Your task to perform on an android device: open app "Firefox Browser" Image 0: 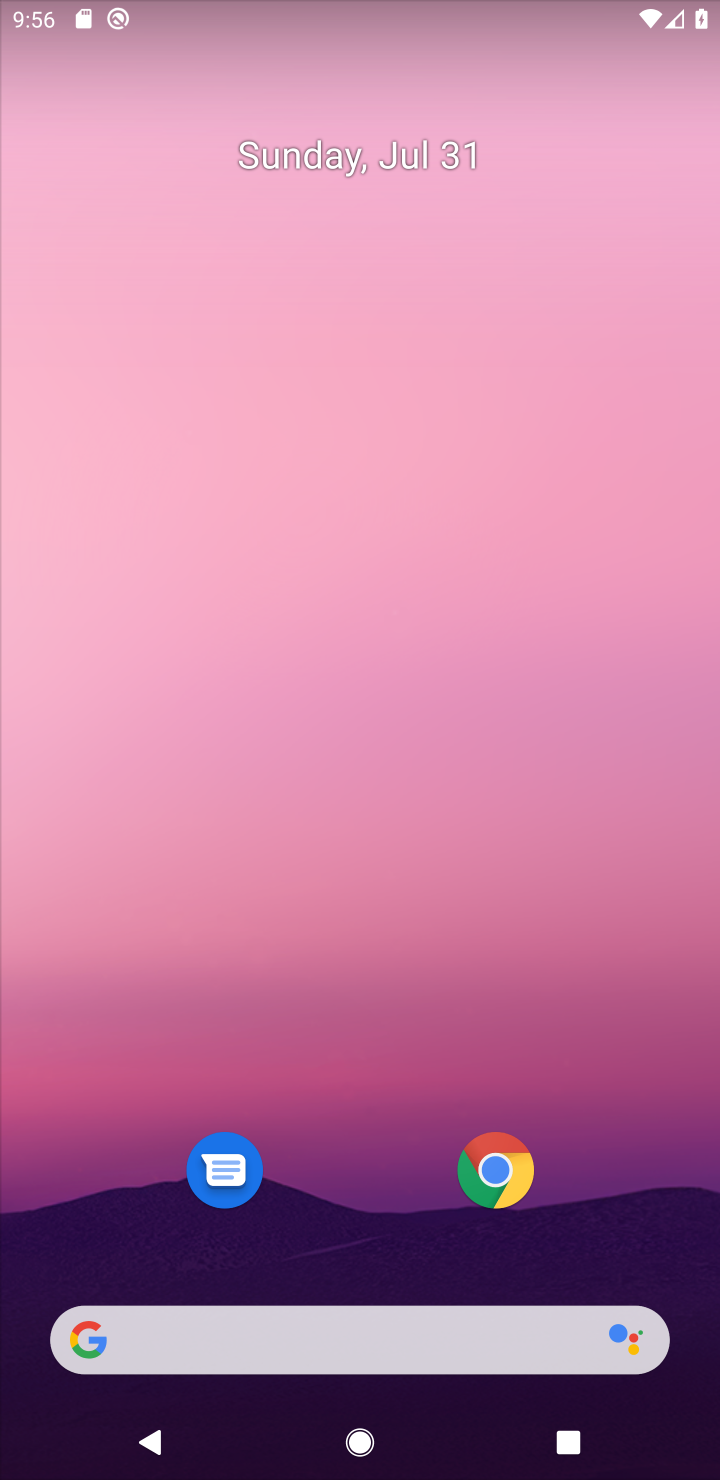
Step 0: drag from (602, 1181) to (309, 122)
Your task to perform on an android device: open app "Firefox Browser" Image 1: 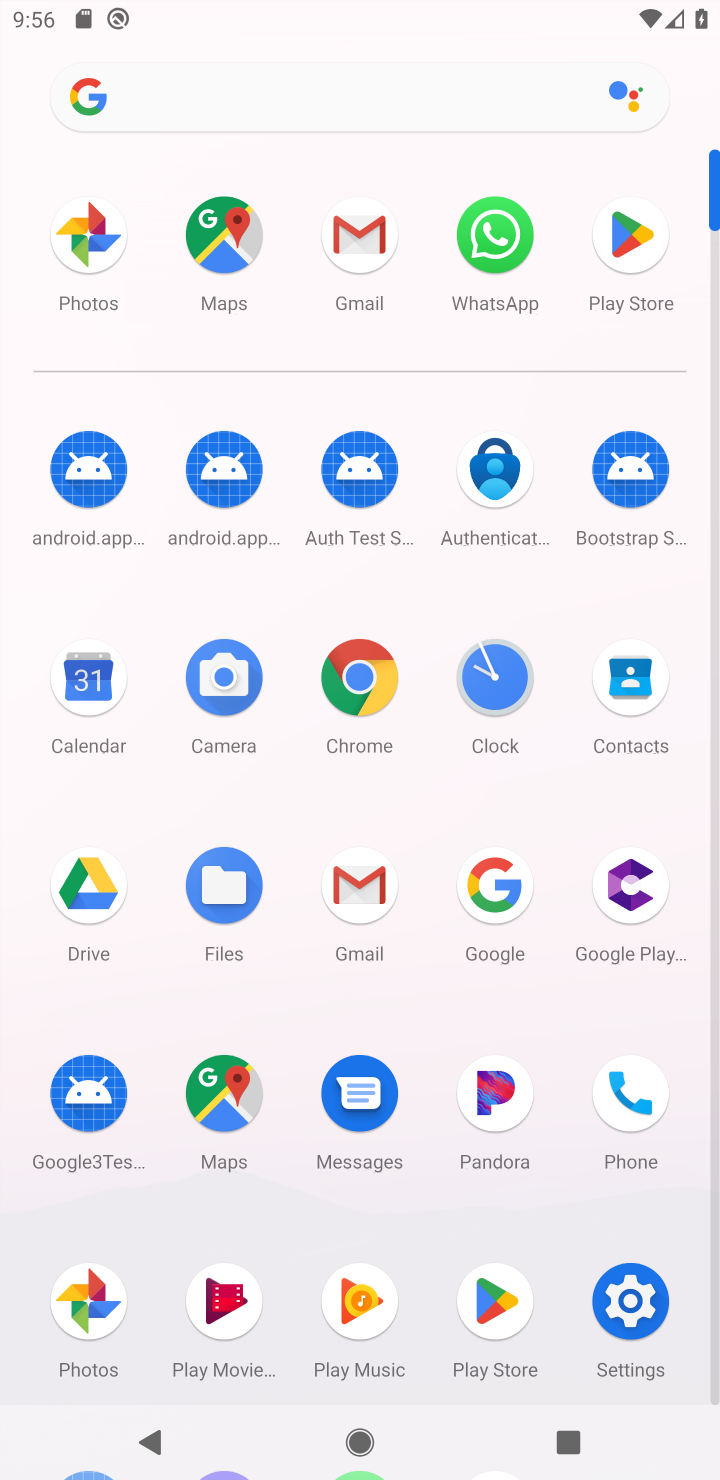
Step 1: click (653, 212)
Your task to perform on an android device: open app "Firefox Browser" Image 2: 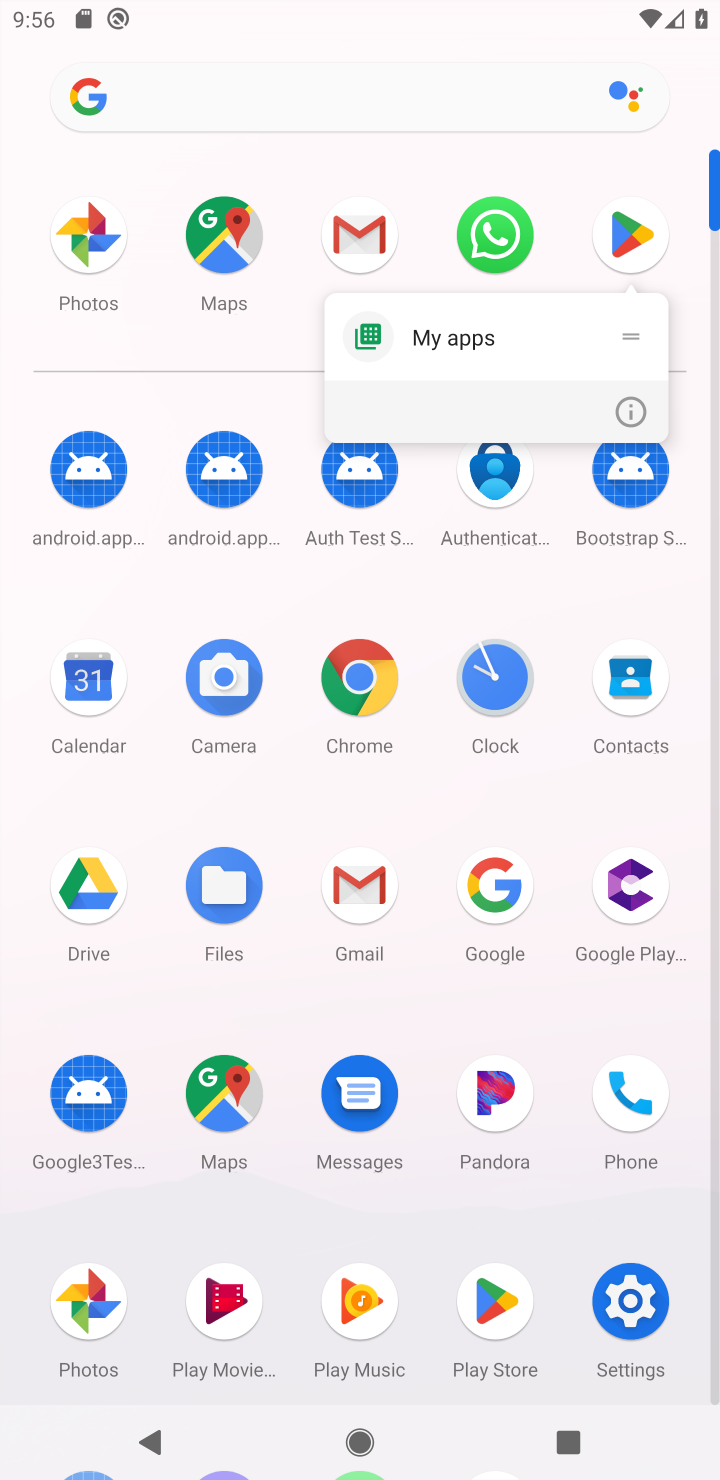
Step 2: click (649, 212)
Your task to perform on an android device: open app "Firefox Browser" Image 3: 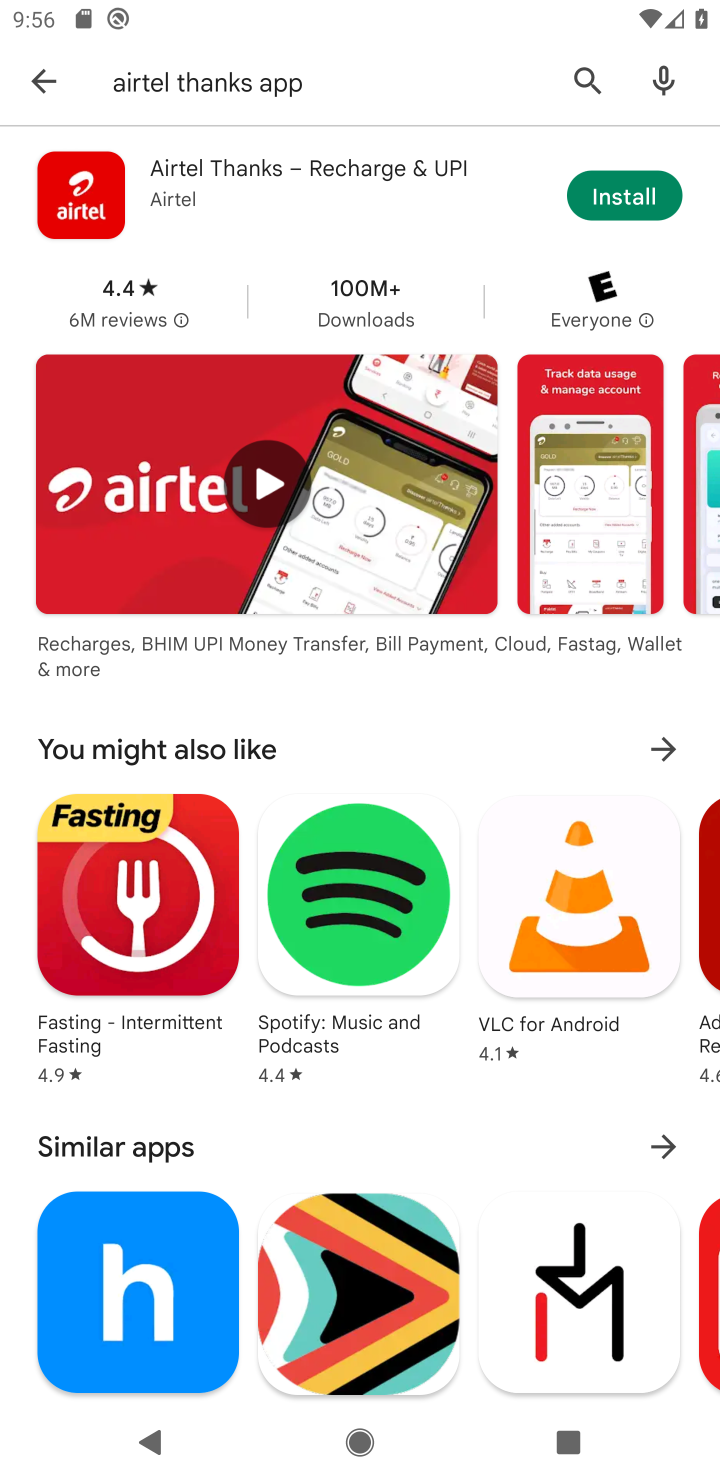
Step 3: press back button
Your task to perform on an android device: open app "Firefox Browser" Image 4: 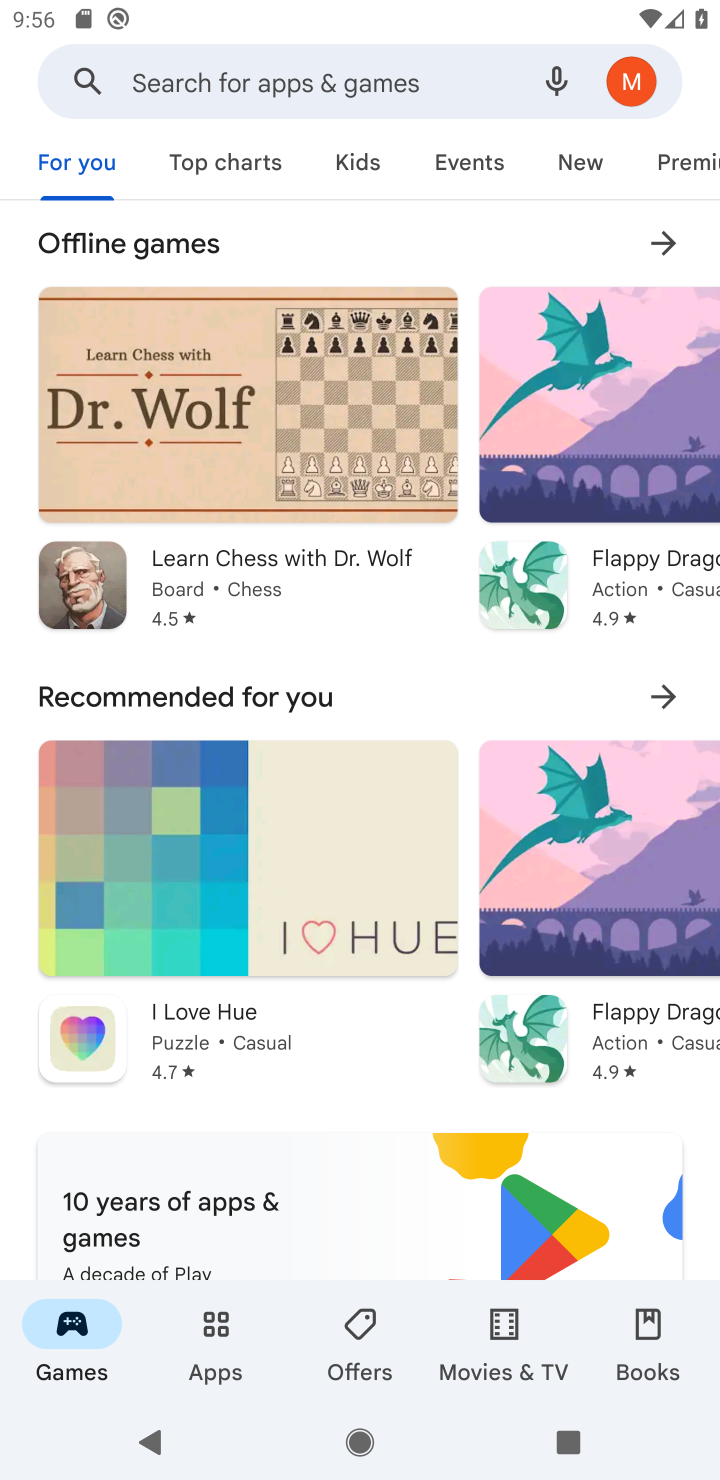
Step 4: click (183, 69)
Your task to perform on an android device: open app "Firefox Browser" Image 5: 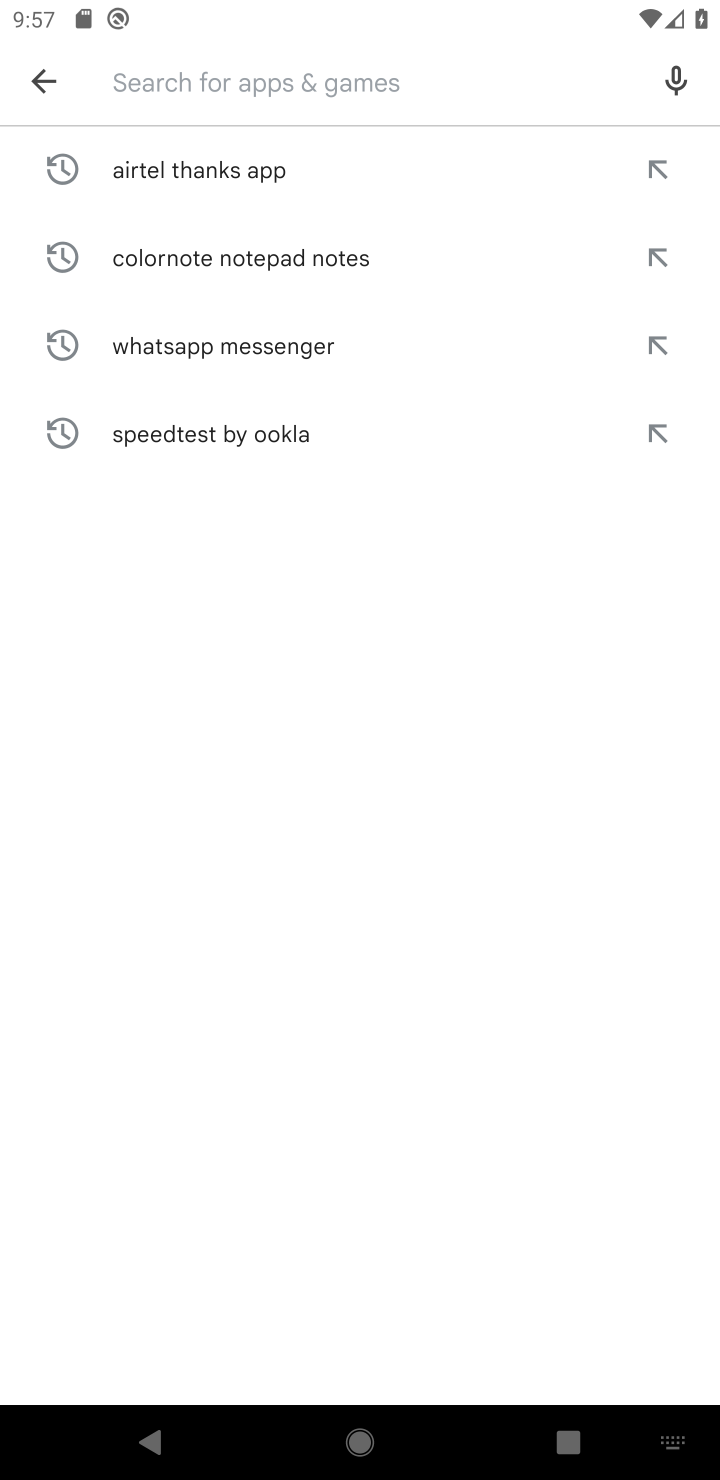
Step 5: type "Firefox Browser"
Your task to perform on an android device: open app "Firefox Browser" Image 6: 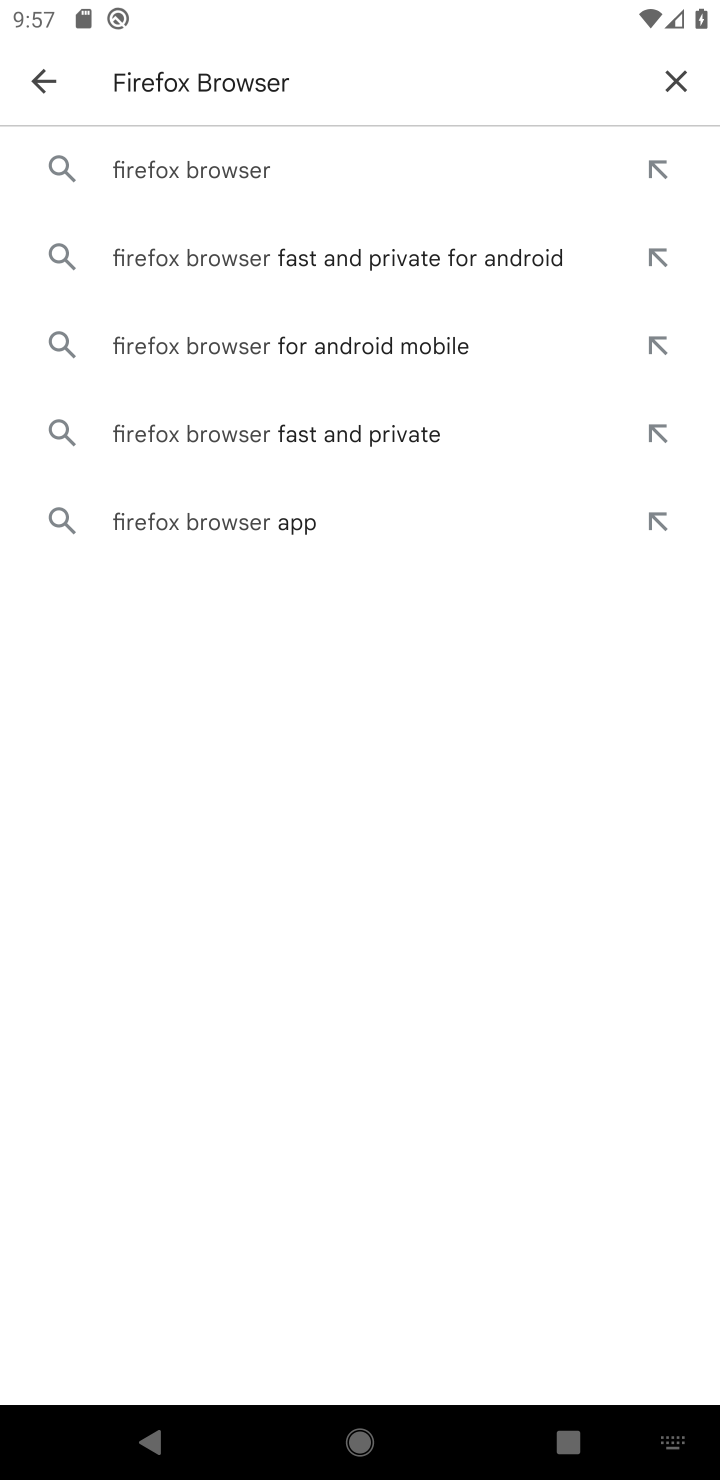
Step 6: click (212, 182)
Your task to perform on an android device: open app "Firefox Browser" Image 7: 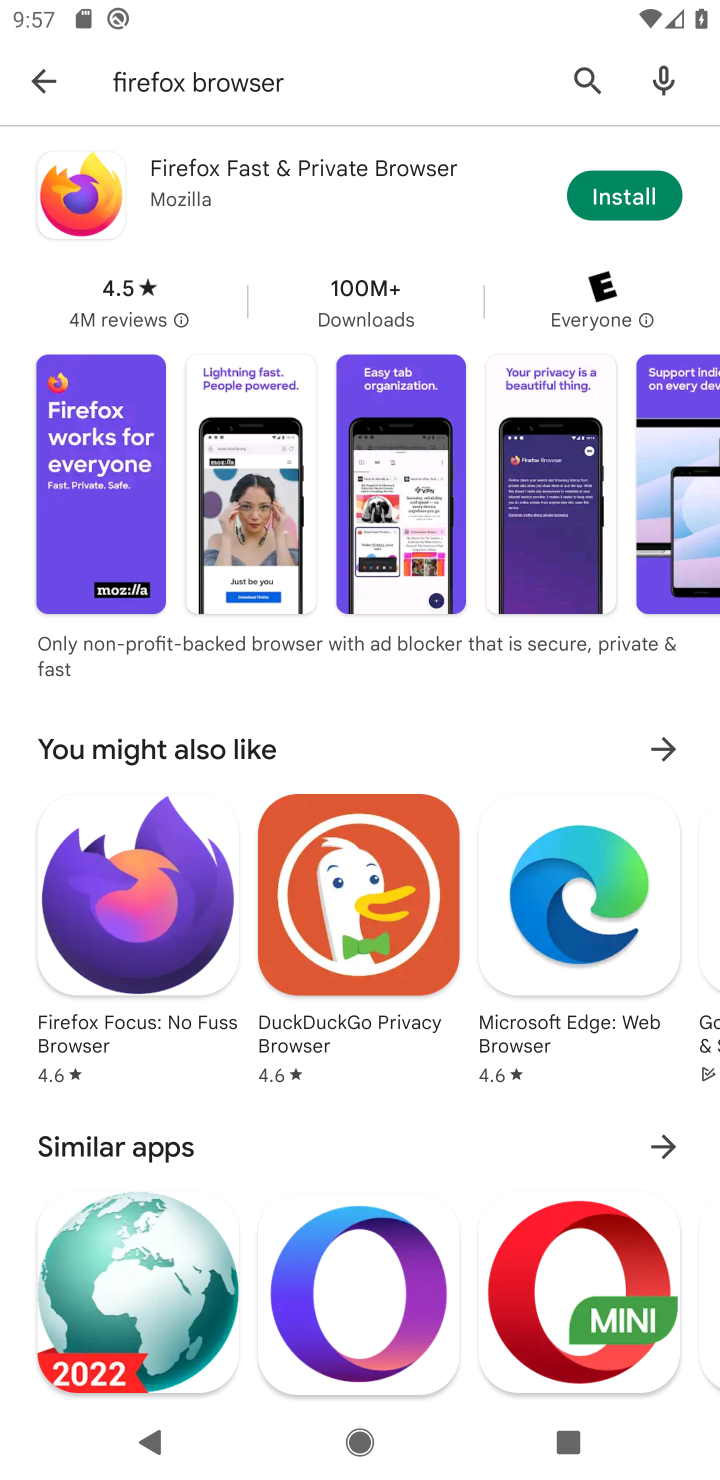
Step 7: task complete